Your task to perform on an android device: Open Google Chrome and open the bookmarks view Image 0: 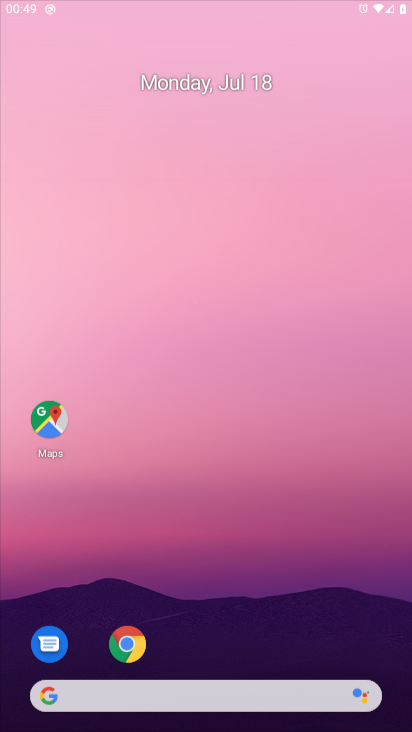
Step 0: press home button
Your task to perform on an android device: Open Google Chrome and open the bookmarks view Image 1: 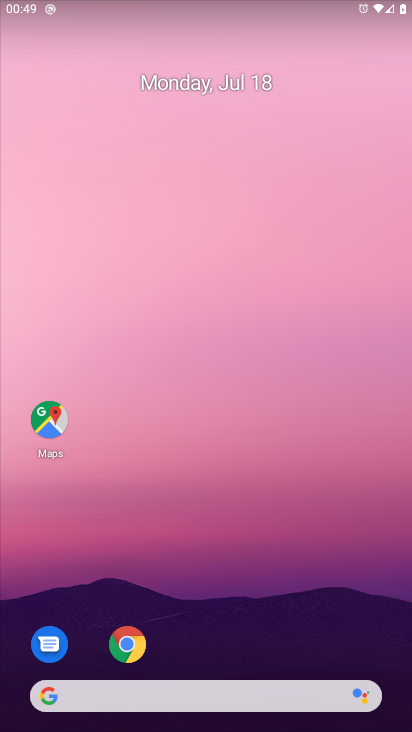
Step 1: press home button
Your task to perform on an android device: Open Google Chrome and open the bookmarks view Image 2: 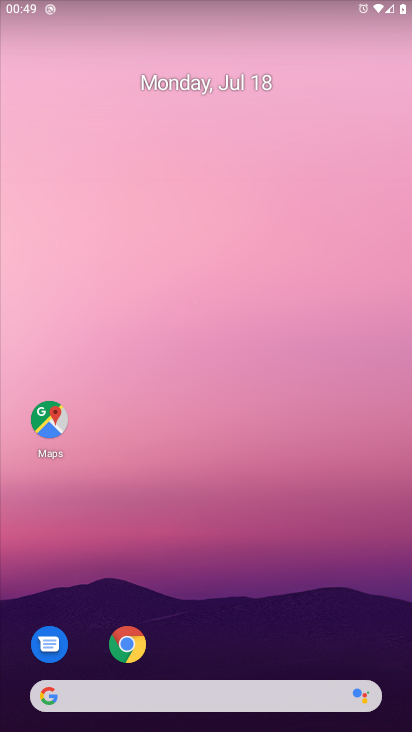
Step 2: click (133, 649)
Your task to perform on an android device: Open Google Chrome and open the bookmarks view Image 3: 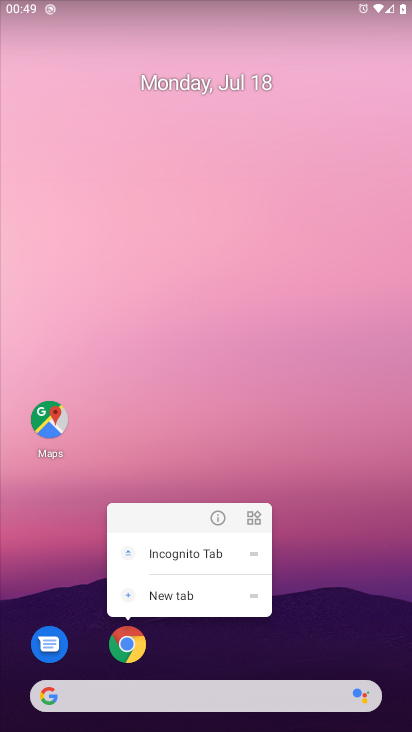
Step 3: click (133, 649)
Your task to perform on an android device: Open Google Chrome and open the bookmarks view Image 4: 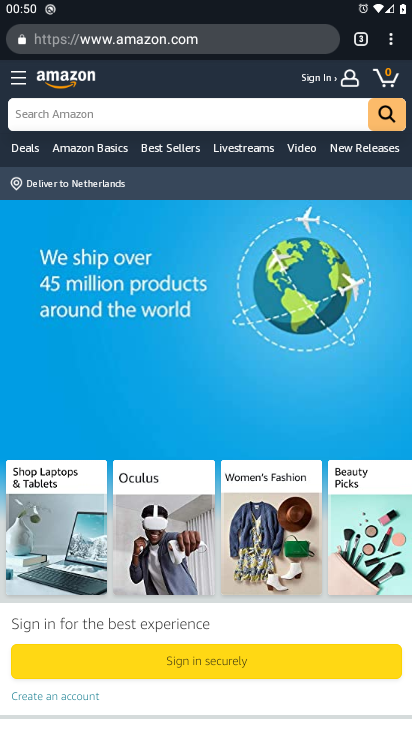
Step 4: task complete